Your task to perform on an android device: open a new tab in the chrome app Image 0: 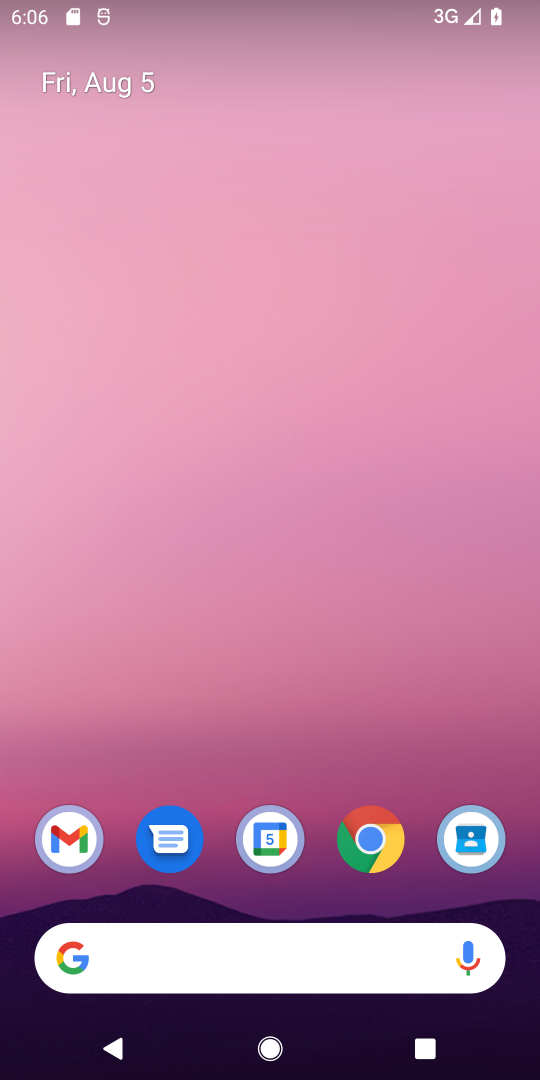
Step 0: click (380, 832)
Your task to perform on an android device: open a new tab in the chrome app Image 1: 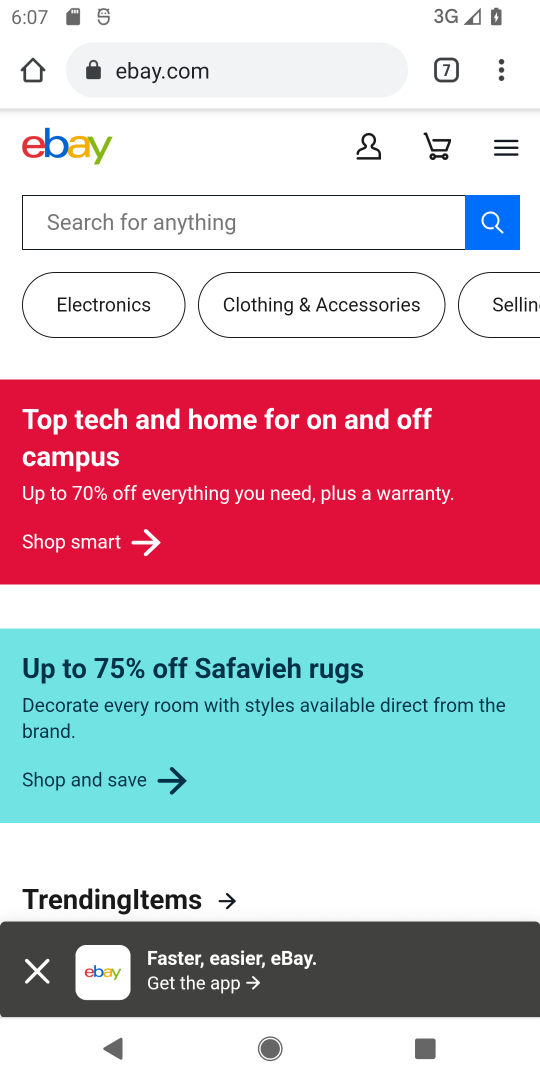
Step 1: click (430, 65)
Your task to perform on an android device: open a new tab in the chrome app Image 2: 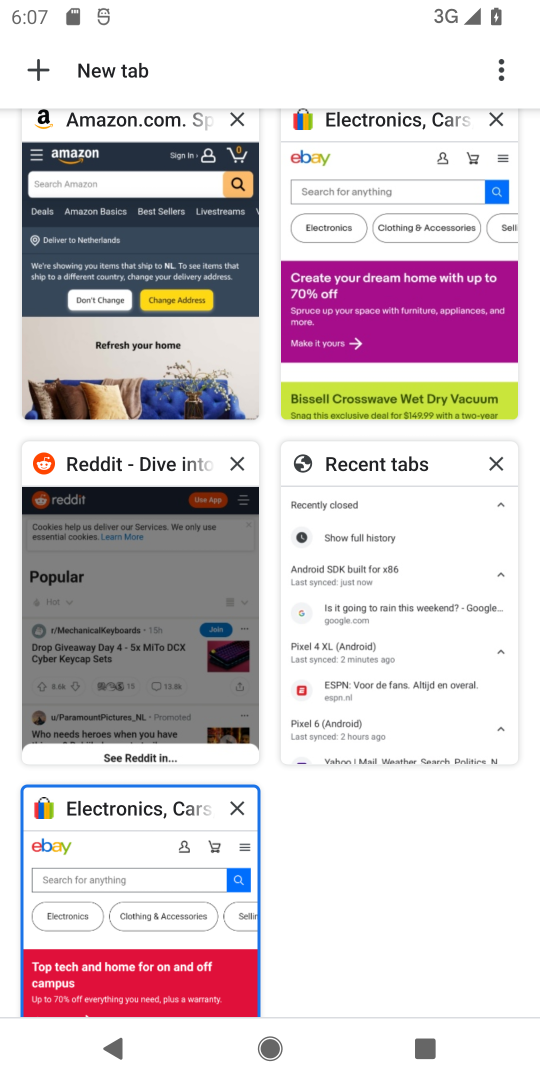
Step 2: click (41, 59)
Your task to perform on an android device: open a new tab in the chrome app Image 3: 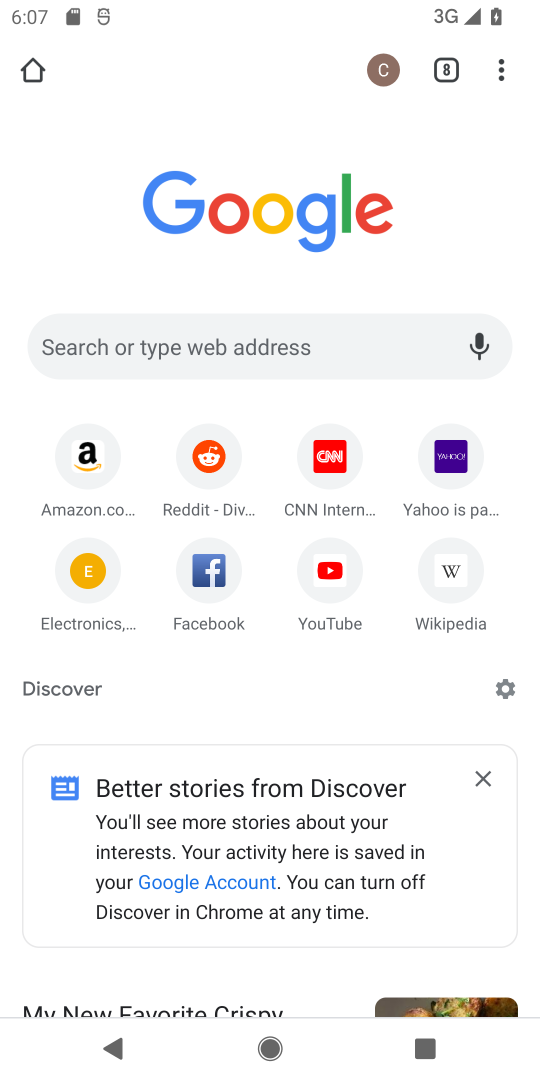
Step 3: task complete